Your task to perform on an android device: What's the weather going to be tomorrow? Image 0: 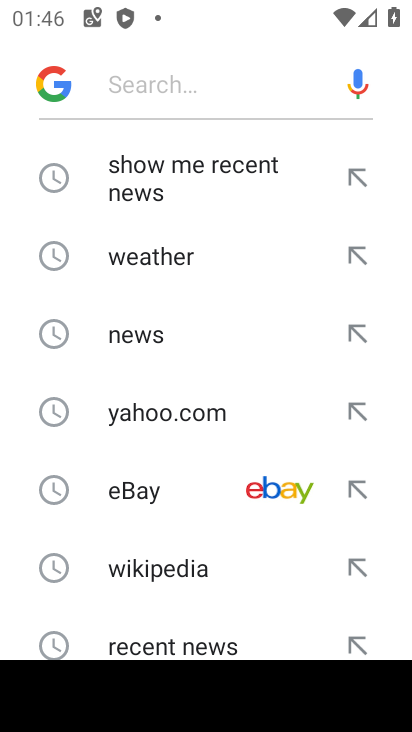
Step 0: click (138, 256)
Your task to perform on an android device: What's the weather going to be tomorrow? Image 1: 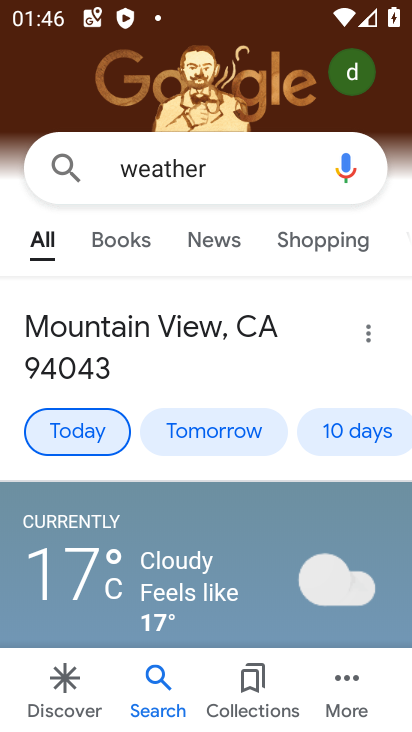
Step 1: click (205, 422)
Your task to perform on an android device: What's the weather going to be tomorrow? Image 2: 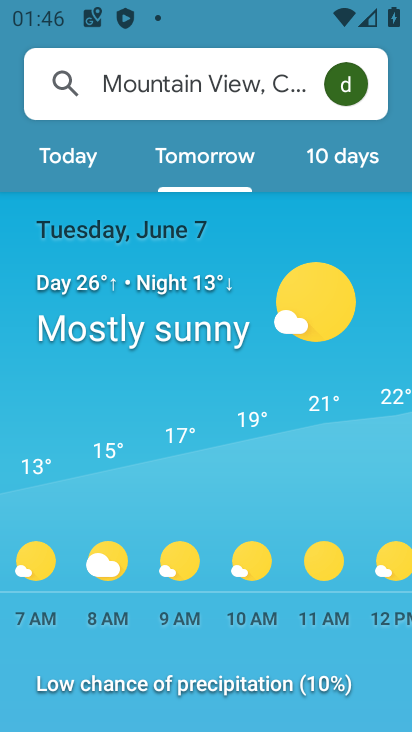
Step 2: task complete